Your task to perform on an android device: Go to notification settings Image 0: 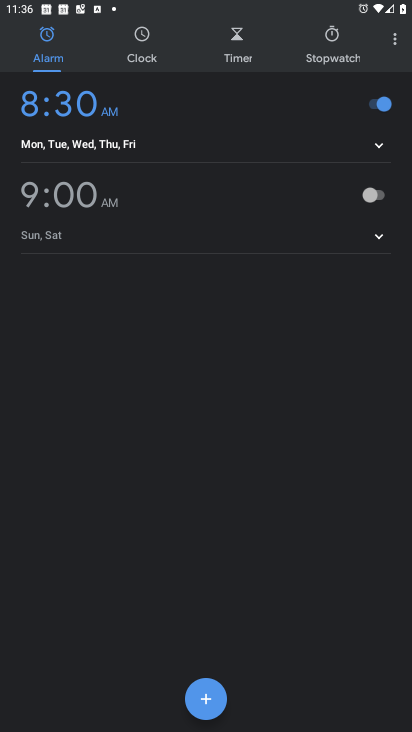
Step 0: press home button
Your task to perform on an android device: Go to notification settings Image 1: 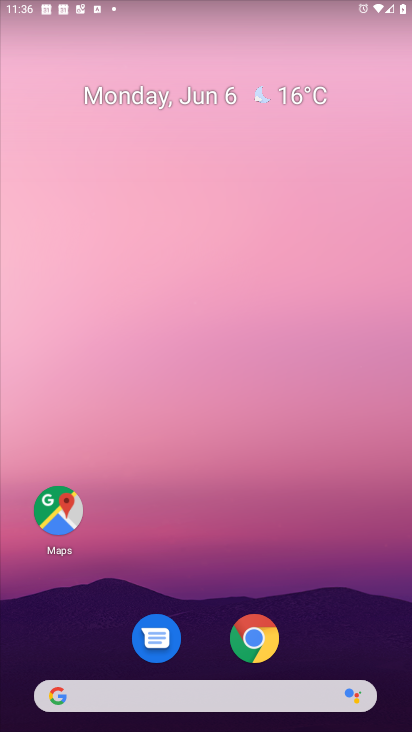
Step 1: drag from (231, 712) to (379, 98)
Your task to perform on an android device: Go to notification settings Image 2: 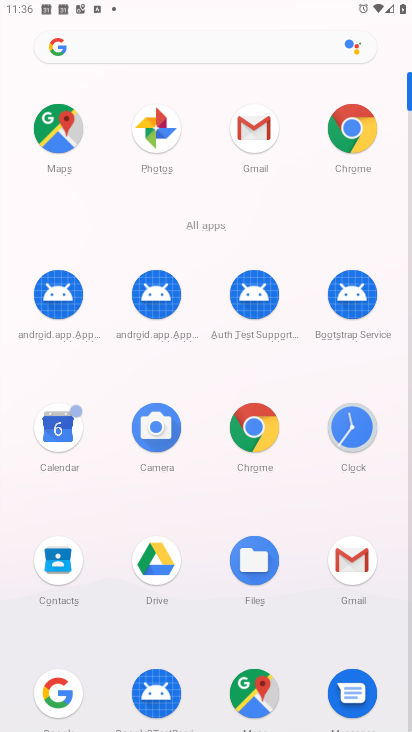
Step 2: drag from (192, 622) to (210, 392)
Your task to perform on an android device: Go to notification settings Image 3: 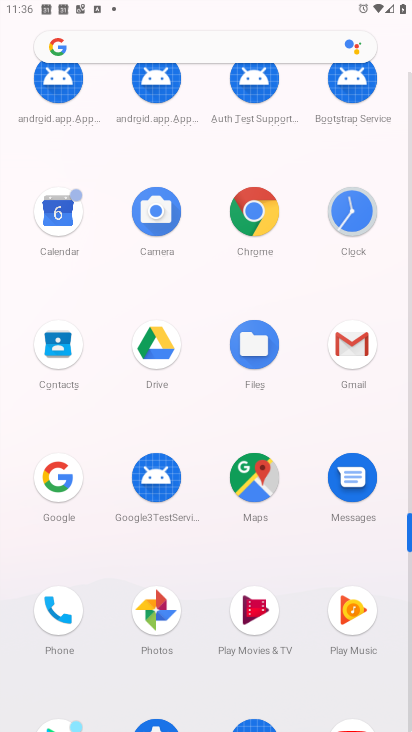
Step 3: drag from (195, 618) to (202, 529)
Your task to perform on an android device: Go to notification settings Image 4: 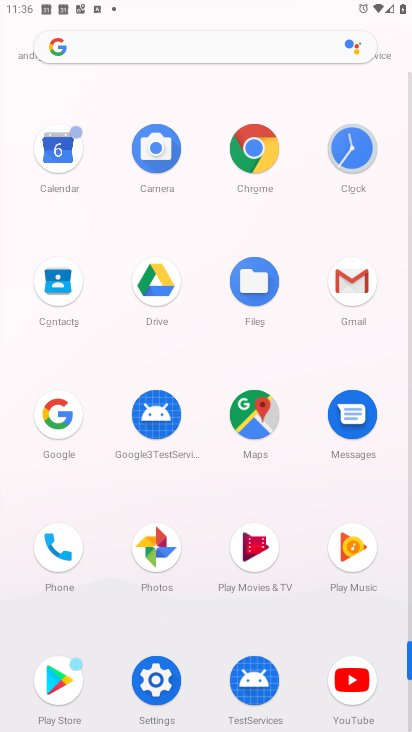
Step 4: click (162, 672)
Your task to perform on an android device: Go to notification settings Image 5: 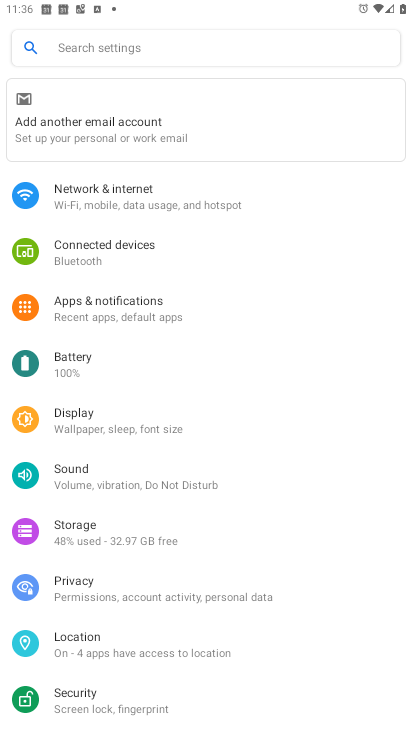
Step 5: click (125, 47)
Your task to perform on an android device: Go to notification settings Image 6: 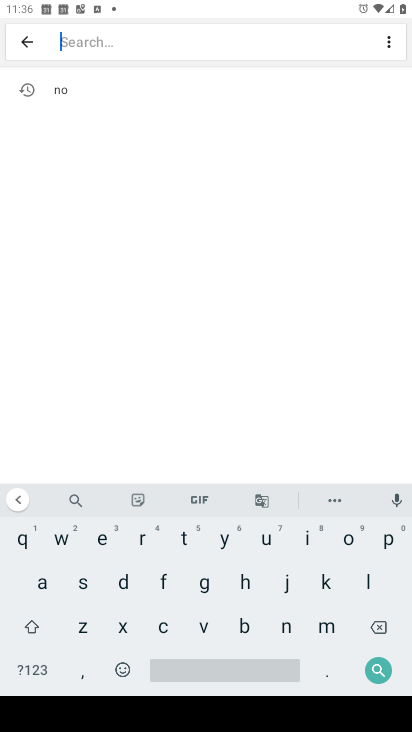
Step 6: click (287, 618)
Your task to perform on an android device: Go to notification settings Image 7: 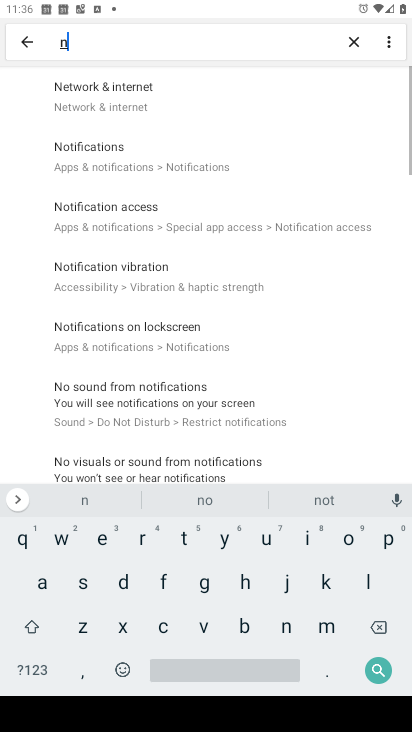
Step 7: click (338, 547)
Your task to perform on an android device: Go to notification settings Image 8: 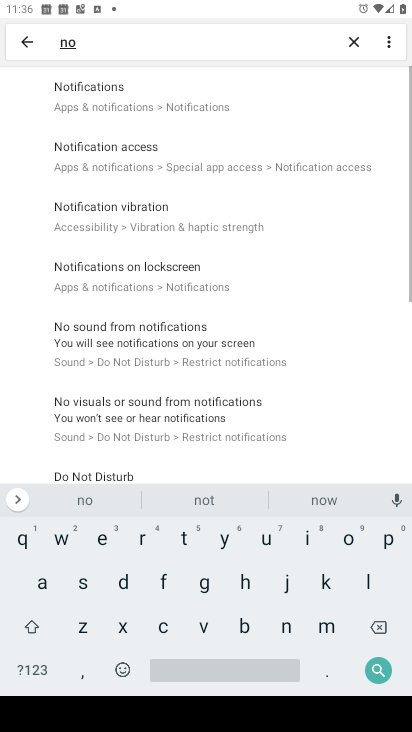
Step 8: click (159, 109)
Your task to perform on an android device: Go to notification settings Image 9: 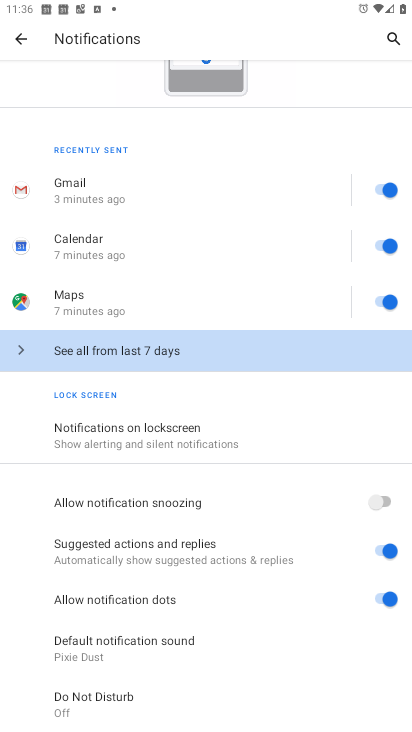
Step 9: click (101, 431)
Your task to perform on an android device: Go to notification settings Image 10: 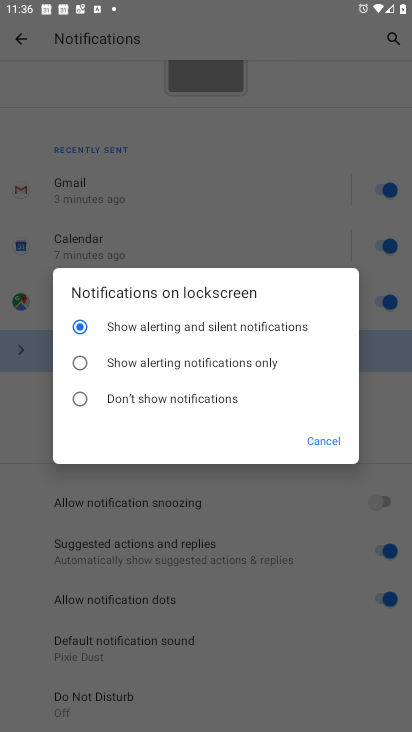
Step 10: task complete